Your task to perform on an android device: See recent photos Image 0: 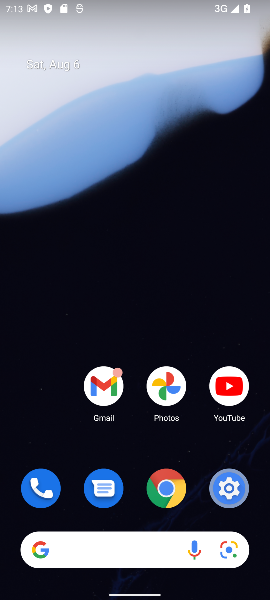
Step 0: click (167, 395)
Your task to perform on an android device: See recent photos Image 1: 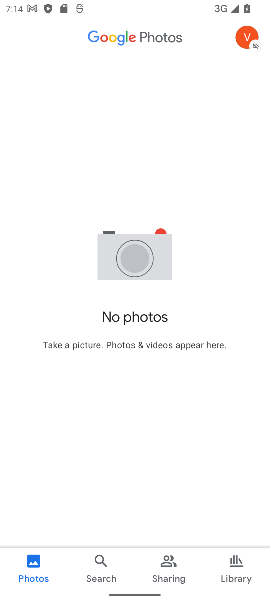
Step 1: click (229, 555)
Your task to perform on an android device: See recent photos Image 2: 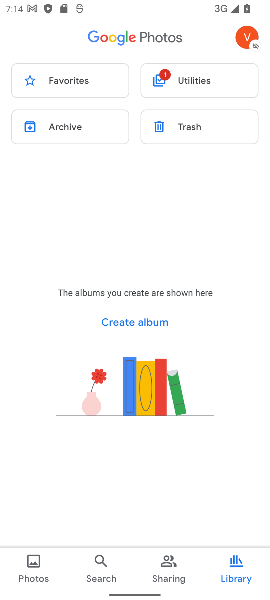
Step 2: task complete